Your task to perform on an android device: toggle priority inbox in the gmail app Image 0: 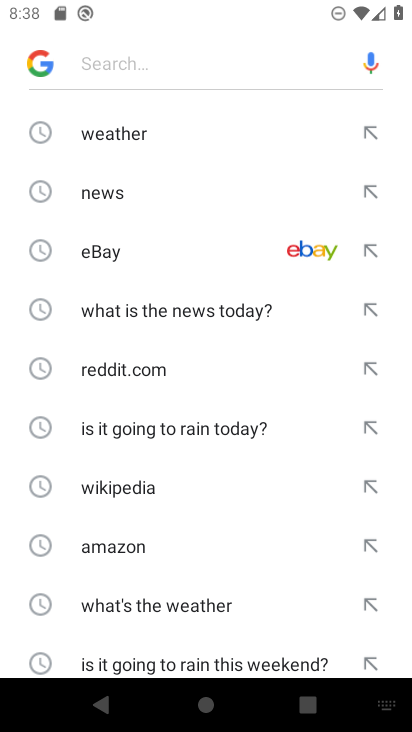
Step 0: press home button
Your task to perform on an android device: toggle priority inbox in the gmail app Image 1: 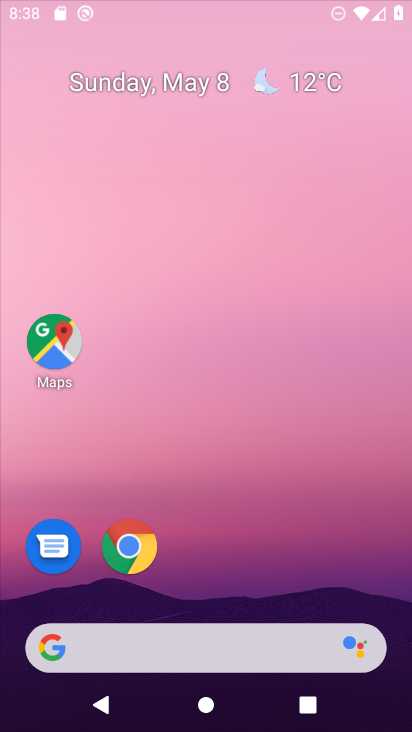
Step 1: drag from (266, 317) to (247, 31)
Your task to perform on an android device: toggle priority inbox in the gmail app Image 2: 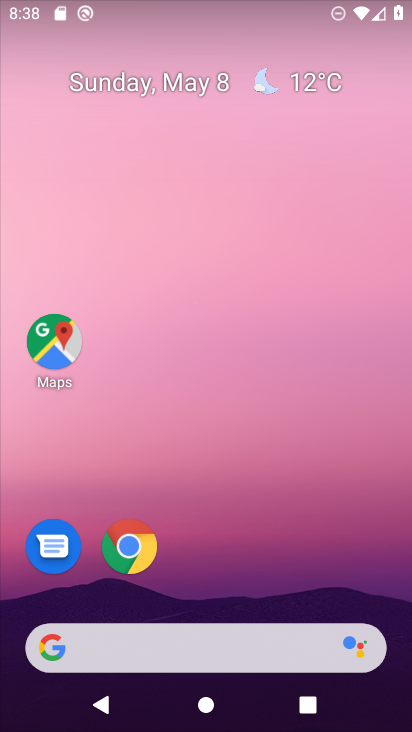
Step 2: drag from (247, 537) to (270, 22)
Your task to perform on an android device: toggle priority inbox in the gmail app Image 3: 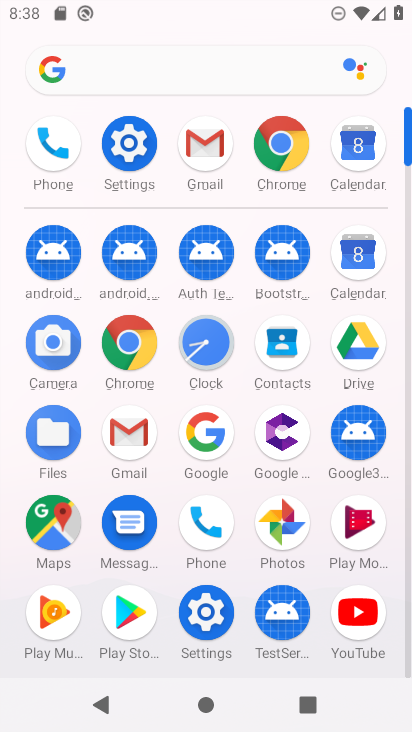
Step 3: click (208, 130)
Your task to perform on an android device: toggle priority inbox in the gmail app Image 4: 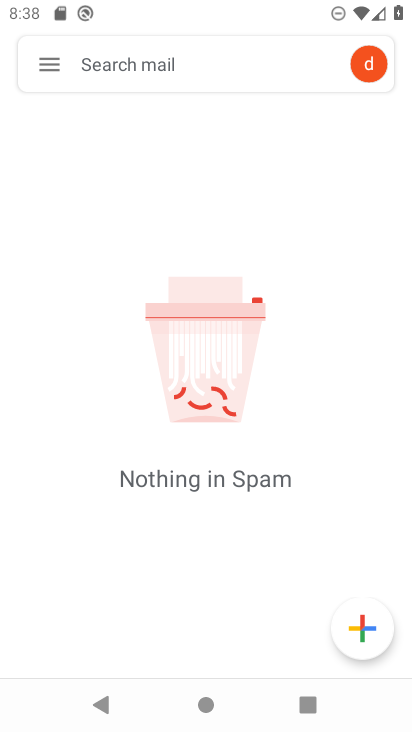
Step 4: click (47, 66)
Your task to perform on an android device: toggle priority inbox in the gmail app Image 5: 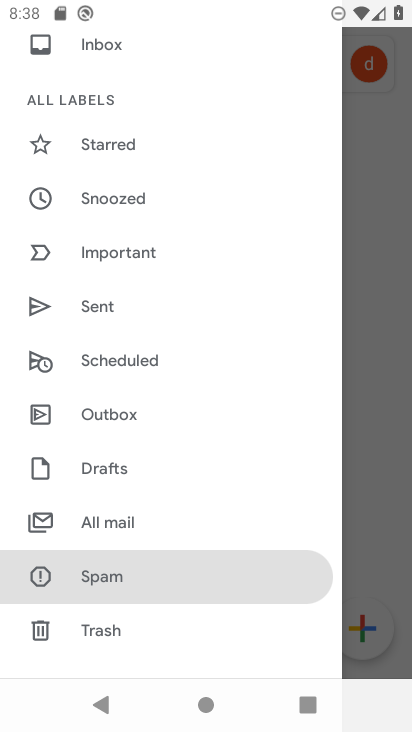
Step 5: drag from (150, 519) to (174, 159)
Your task to perform on an android device: toggle priority inbox in the gmail app Image 6: 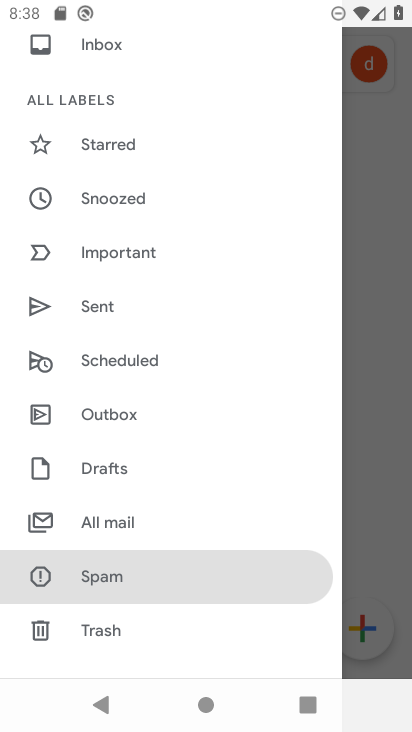
Step 6: drag from (202, 518) to (212, 87)
Your task to perform on an android device: toggle priority inbox in the gmail app Image 7: 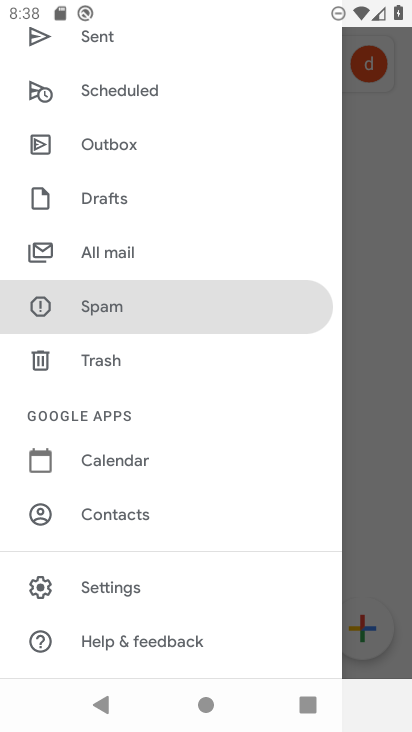
Step 7: click (103, 586)
Your task to perform on an android device: toggle priority inbox in the gmail app Image 8: 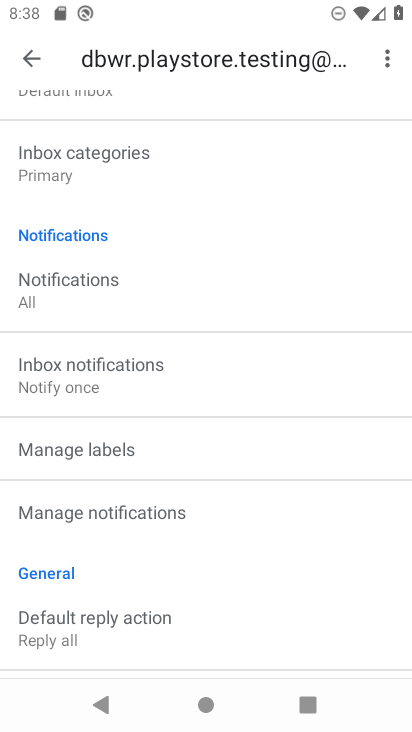
Step 8: drag from (96, 255) to (112, 549)
Your task to perform on an android device: toggle priority inbox in the gmail app Image 9: 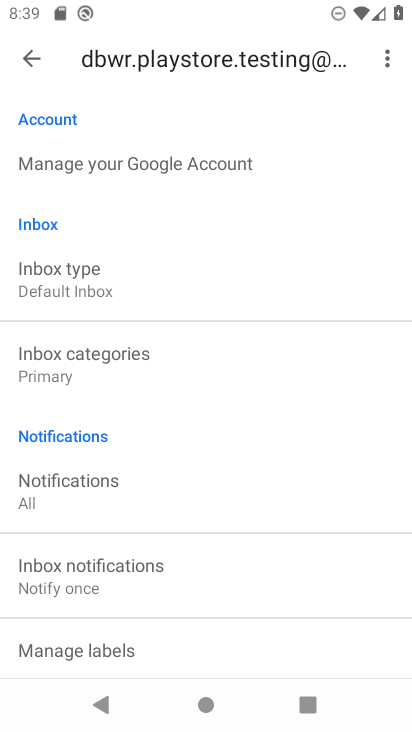
Step 9: click (67, 274)
Your task to perform on an android device: toggle priority inbox in the gmail app Image 10: 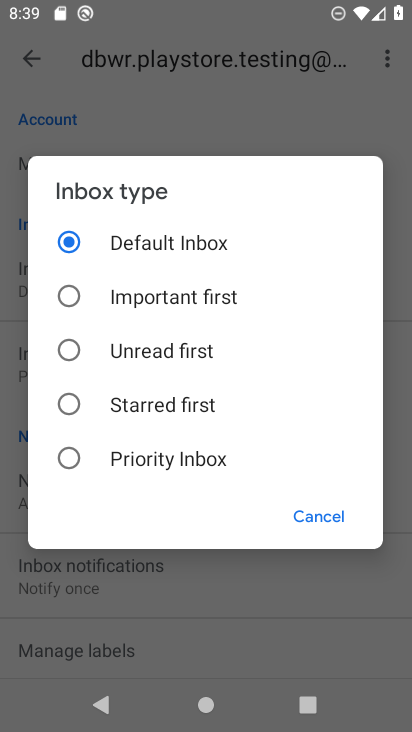
Step 10: click (62, 452)
Your task to perform on an android device: toggle priority inbox in the gmail app Image 11: 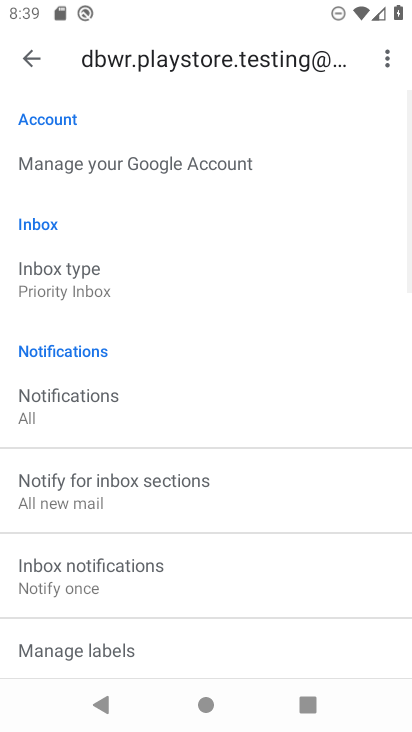
Step 11: task complete